Your task to perform on an android device: Open calendar and show me the fourth week of next month Image 0: 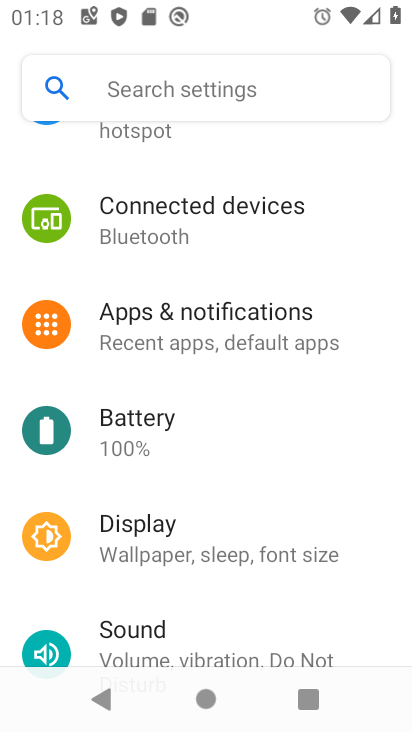
Step 0: press home button
Your task to perform on an android device: Open calendar and show me the fourth week of next month Image 1: 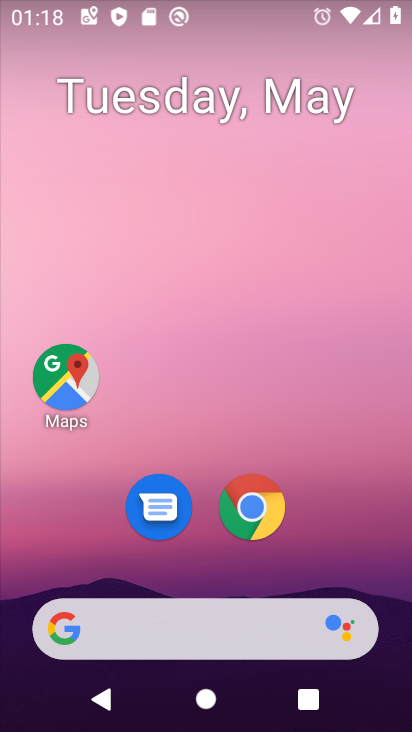
Step 1: drag from (226, 594) to (203, 196)
Your task to perform on an android device: Open calendar and show me the fourth week of next month Image 2: 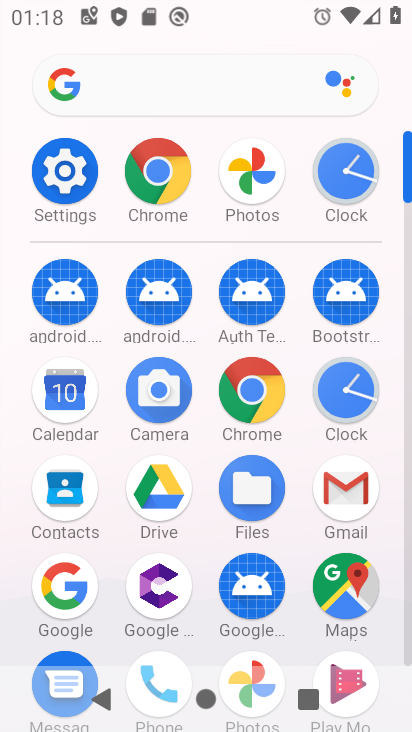
Step 2: click (62, 372)
Your task to perform on an android device: Open calendar and show me the fourth week of next month Image 3: 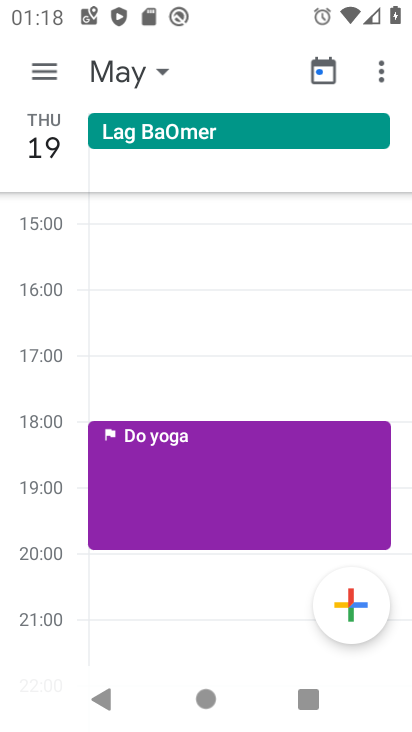
Step 3: click (131, 66)
Your task to perform on an android device: Open calendar and show me the fourth week of next month Image 4: 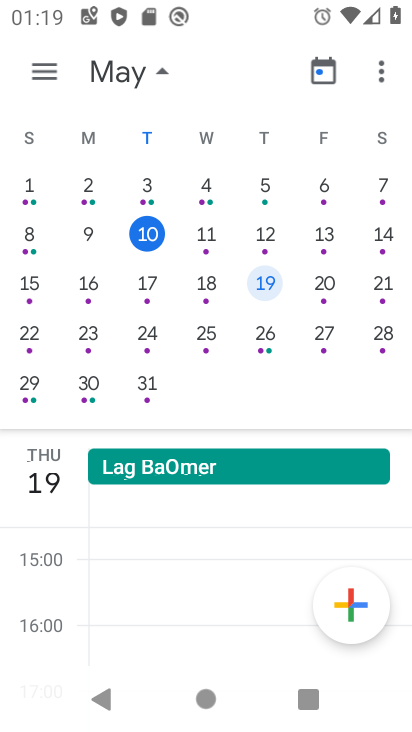
Step 4: drag from (401, 322) to (1, 317)
Your task to perform on an android device: Open calendar and show me the fourth week of next month Image 5: 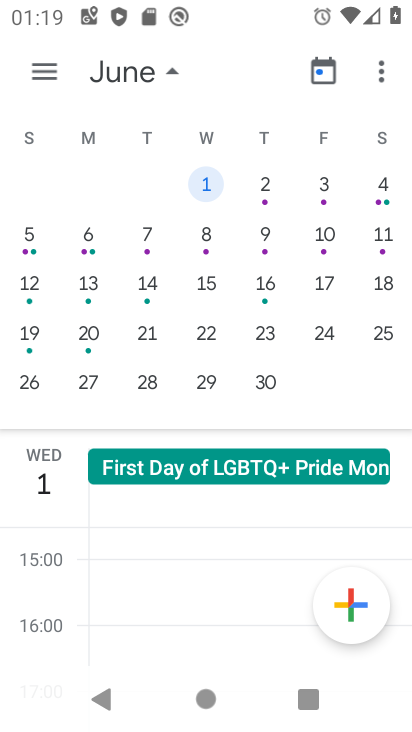
Step 5: click (32, 331)
Your task to perform on an android device: Open calendar and show me the fourth week of next month Image 6: 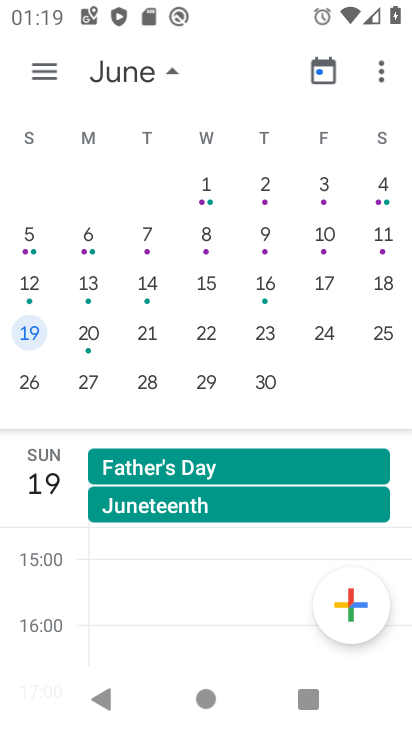
Step 6: task complete